Your task to perform on an android device: Search for seafood restaurants on Google Maps Image 0: 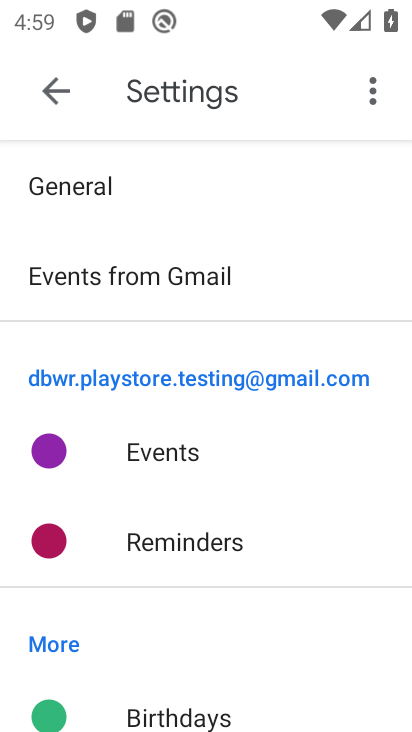
Step 0: press home button
Your task to perform on an android device: Search for seafood restaurants on Google Maps Image 1: 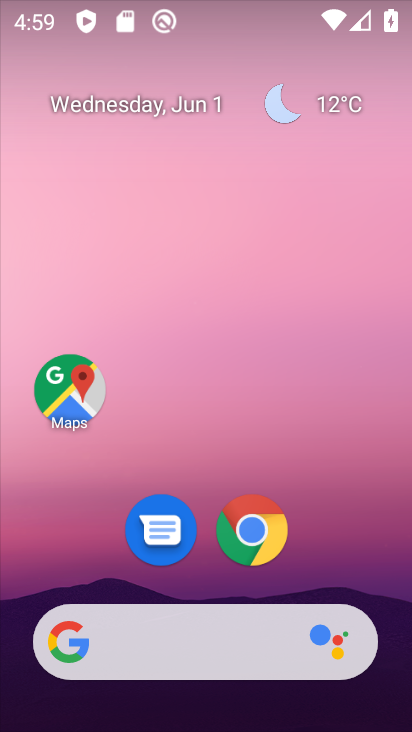
Step 1: click (68, 418)
Your task to perform on an android device: Search for seafood restaurants on Google Maps Image 2: 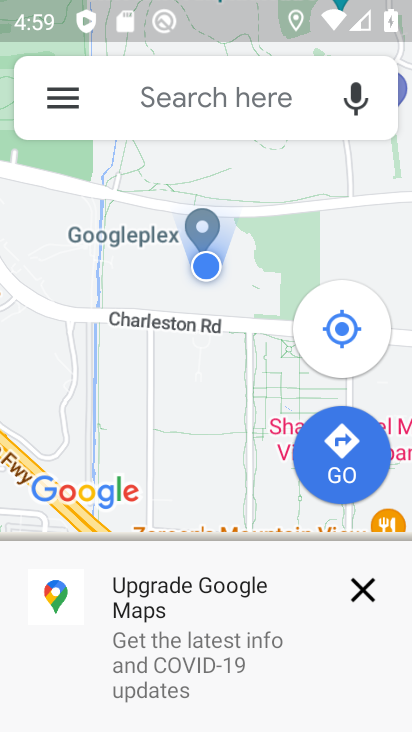
Step 2: click (240, 112)
Your task to perform on an android device: Search for seafood restaurants on Google Maps Image 3: 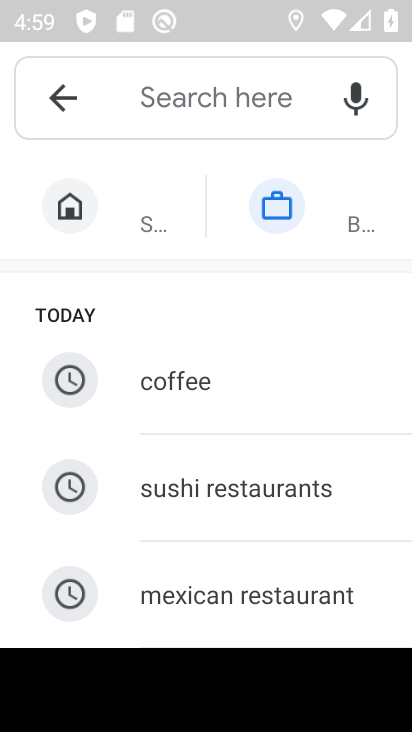
Step 3: drag from (226, 590) to (247, 327)
Your task to perform on an android device: Search for seafood restaurants on Google Maps Image 4: 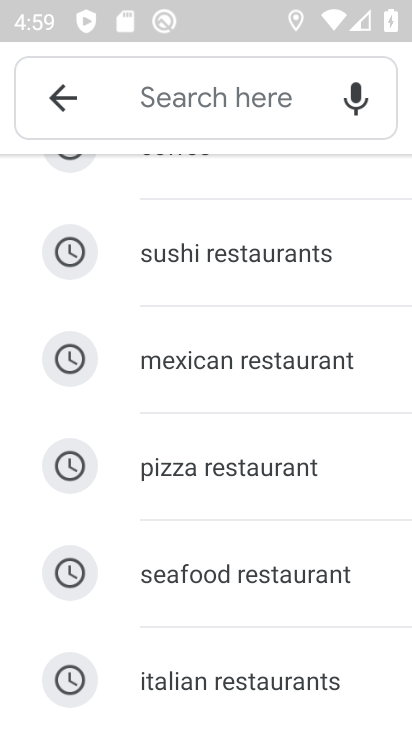
Step 4: click (265, 590)
Your task to perform on an android device: Search for seafood restaurants on Google Maps Image 5: 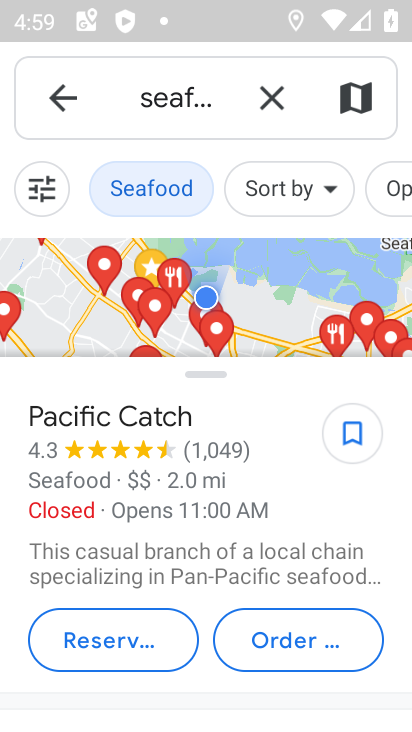
Step 5: task complete